Your task to perform on an android device: install app "Google Chrome" Image 0: 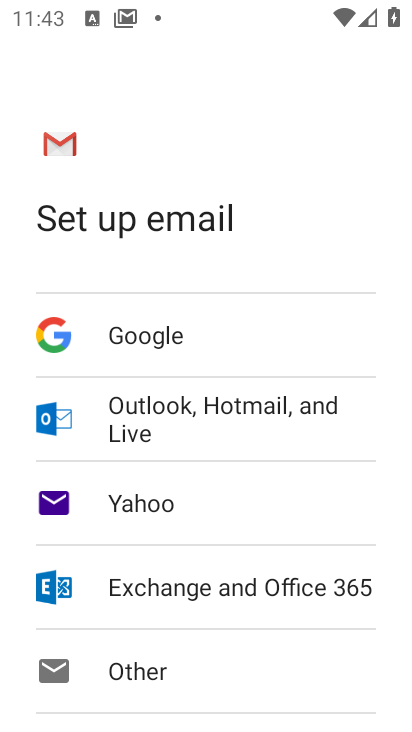
Step 0: press back button
Your task to perform on an android device: install app "Google Chrome" Image 1: 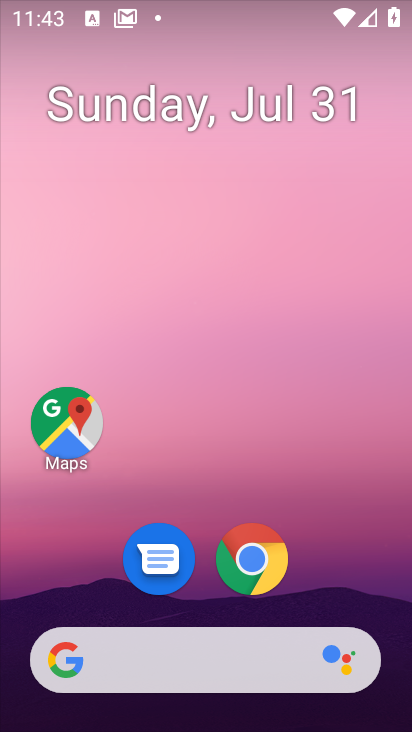
Step 1: click (249, 562)
Your task to perform on an android device: install app "Google Chrome" Image 2: 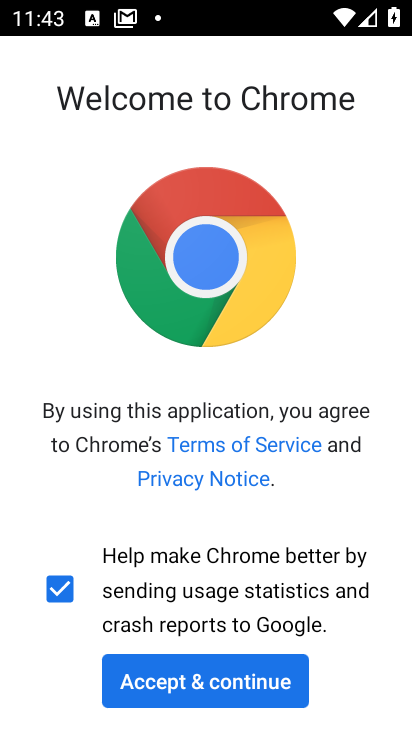
Step 2: click (196, 671)
Your task to perform on an android device: install app "Google Chrome" Image 3: 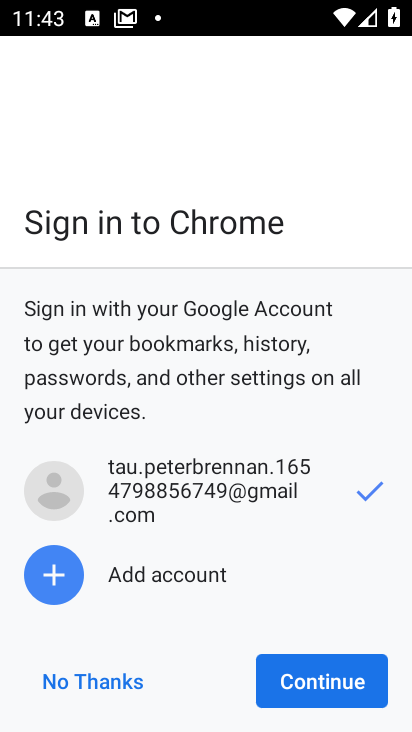
Step 3: click (330, 687)
Your task to perform on an android device: install app "Google Chrome" Image 4: 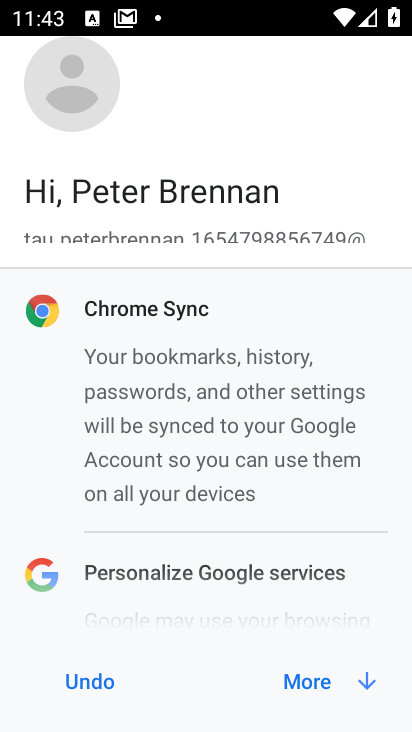
Step 4: click (301, 683)
Your task to perform on an android device: install app "Google Chrome" Image 5: 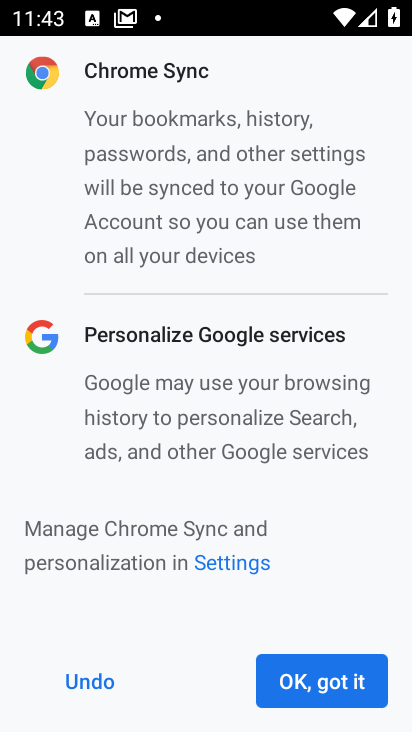
Step 5: task complete